Your task to perform on an android device: Go to sound settings Image 0: 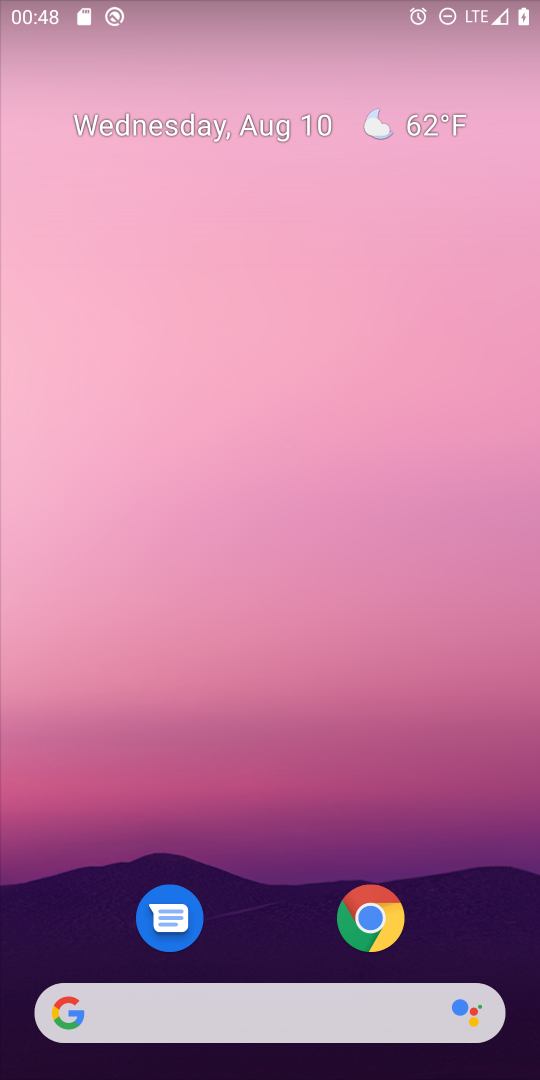
Step 0: drag from (266, 857) to (348, 111)
Your task to perform on an android device: Go to sound settings Image 1: 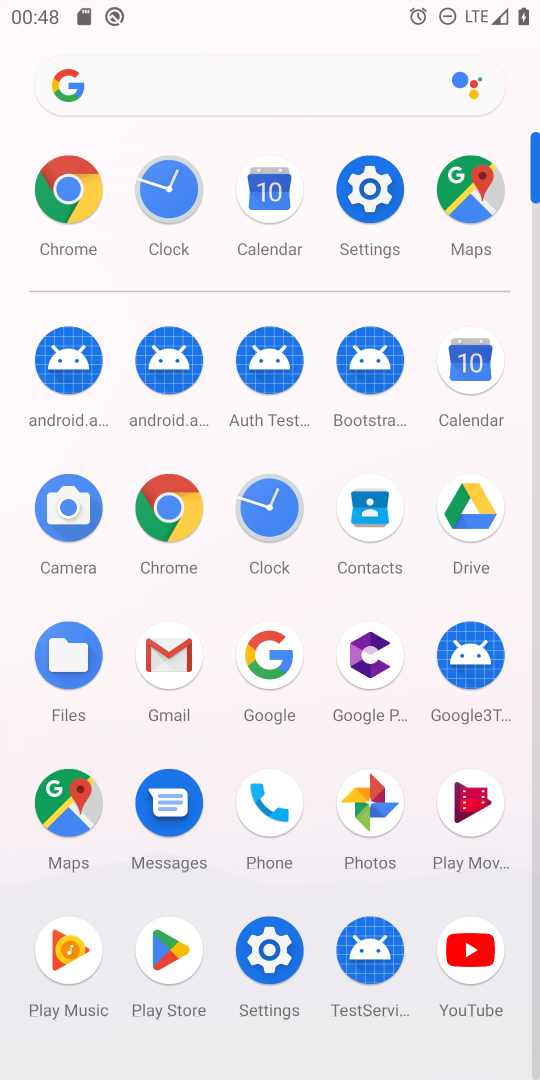
Step 1: click (284, 945)
Your task to perform on an android device: Go to sound settings Image 2: 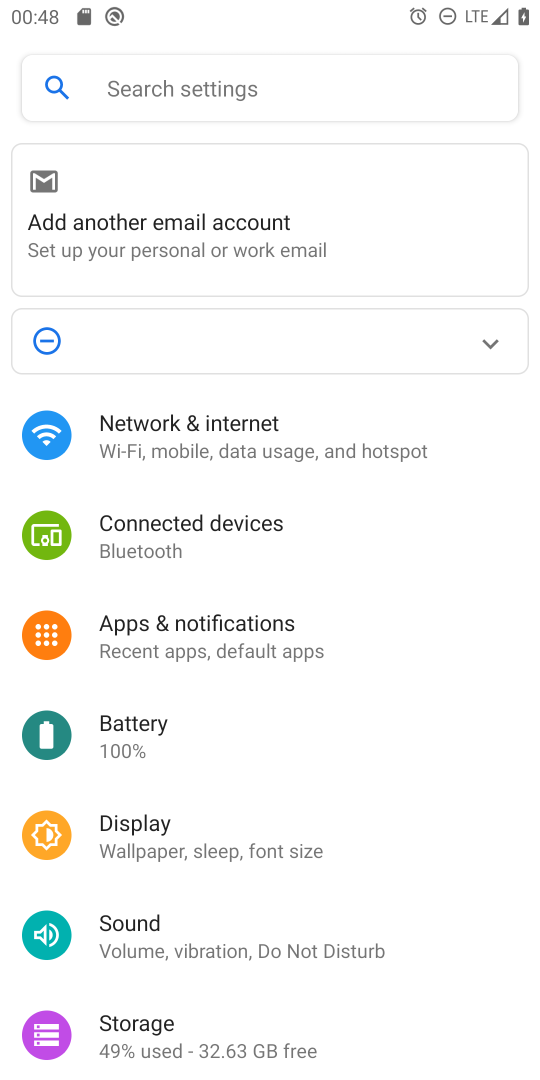
Step 2: drag from (304, 971) to (382, 445)
Your task to perform on an android device: Go to sound settings Image 3: 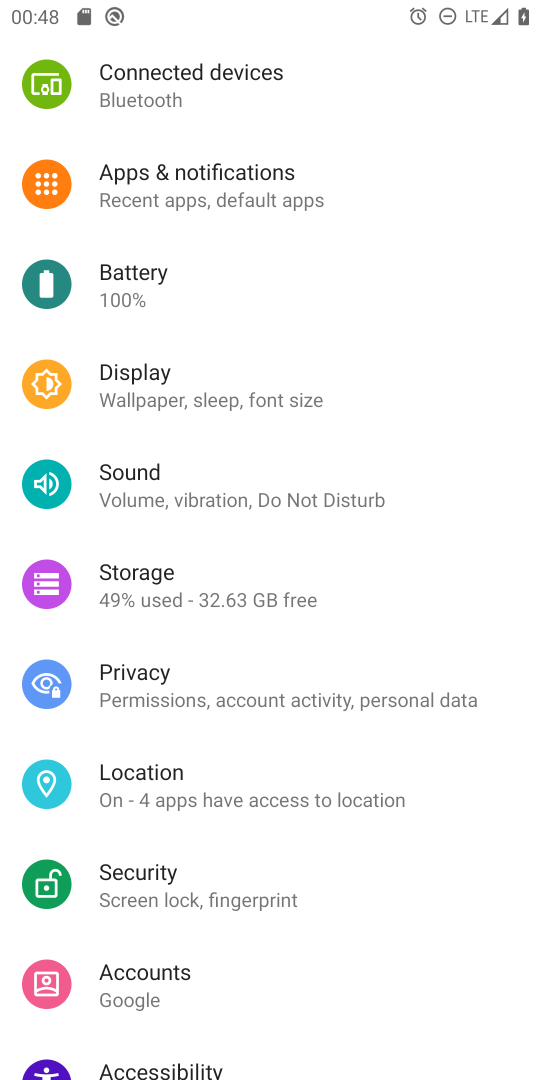
Step 3: click (164, 498)
Your task to perform on an android device: Go to sound settings Image 4: 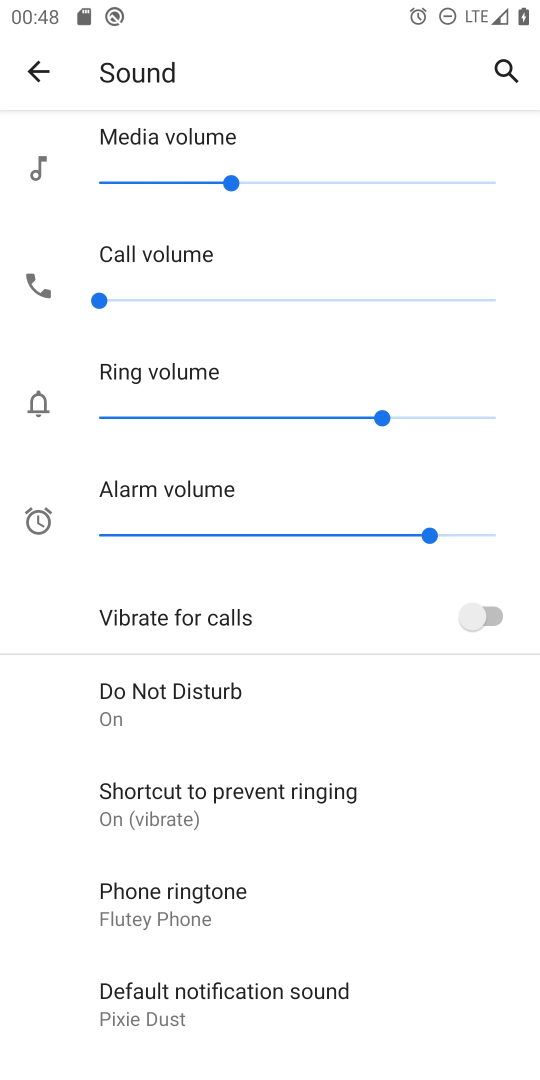
Step 4: task complete